Your task to perform on an android device: Open Wikipedia Image 0: 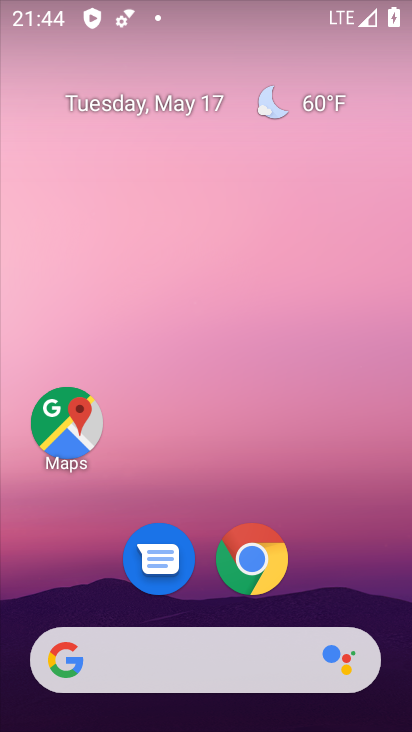
Step 0: click (251, 624)
Your task to perform on an android device: Open Wikipedia Image 1: 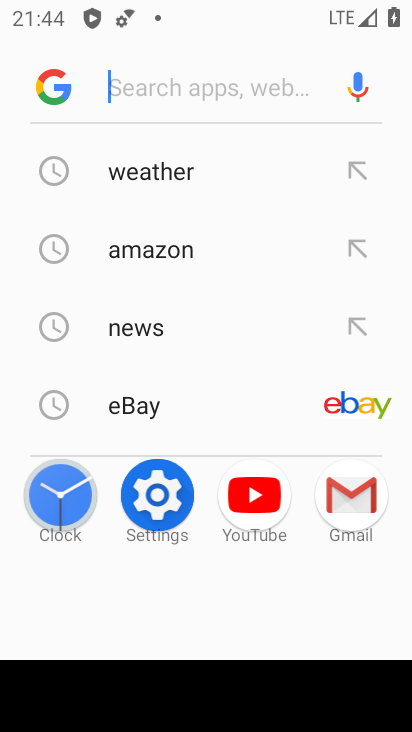
Step 1: type "wikipedia"
Your task to perform on an android device: Open Wikipedia Image 2: 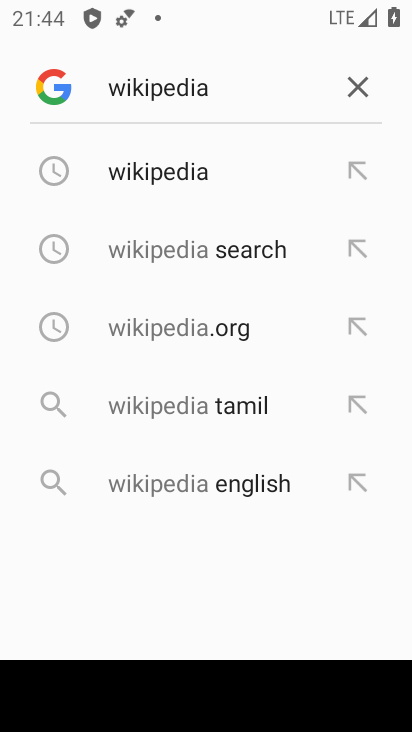
Step 2: click (184, 173)
Your task to perform on an android device: Open Wikipedia Image 3: 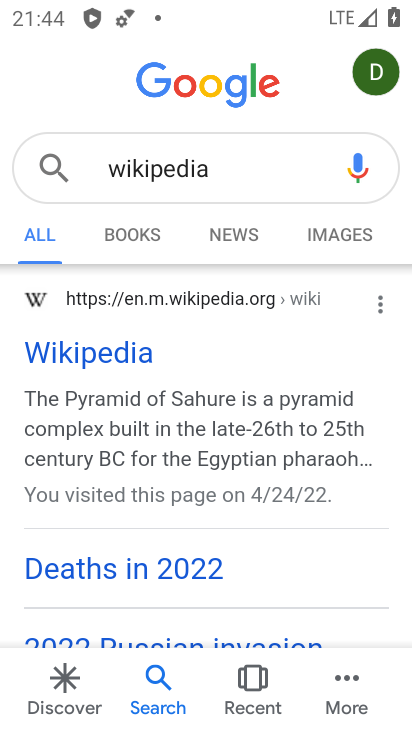
Step 3: click (90, 353)
Your task to perform on an android device: Open Wikipedia Image 4: 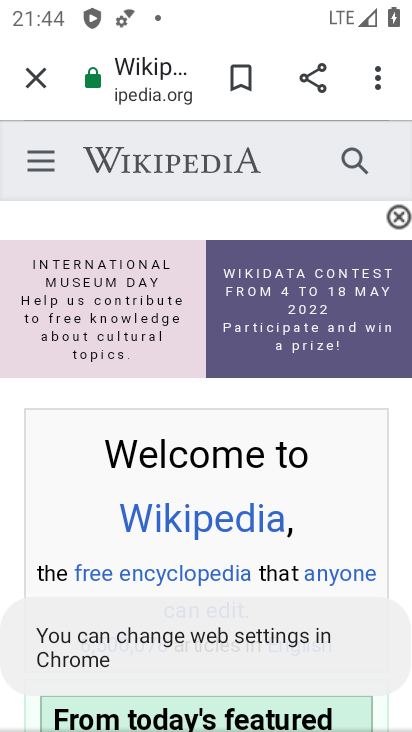
Step 4: task complete